Your task to perform on an android device: Open Youtube and go to the subscriptions tab Image 0: 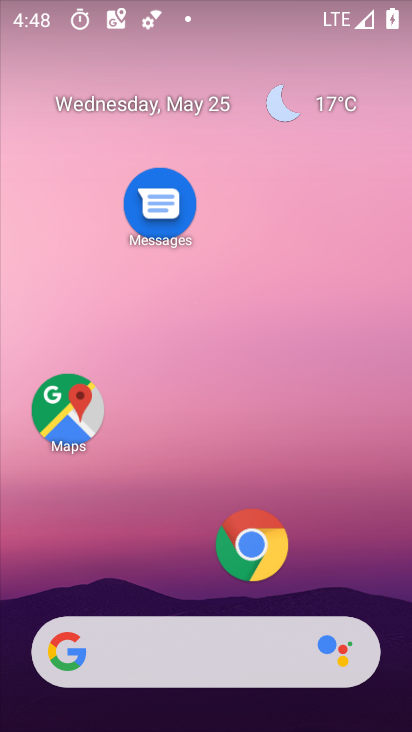
Step 0: drag from (318, 568) to (264, 231)
Your task to perform on an android device: Open Youtube and go to the subscriptions tab Image 1: 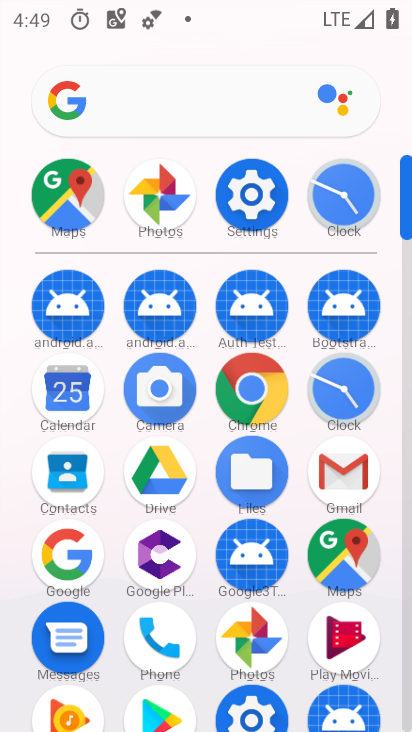
Step 1: drag from (214, 592) to (201, 325)
Your task to perform on an android device: Open Youtube and go to the subscriptions tab Image 2: 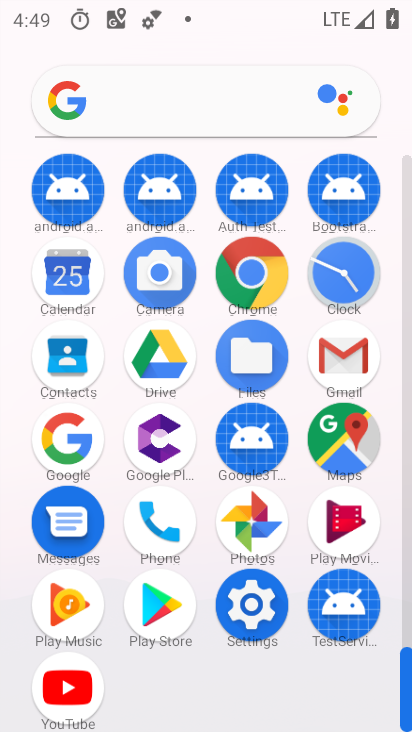
Step 2: click (56, 692)
Your task to perform on an android device: Open Youtube and go to the subscriptions tab Image 3: 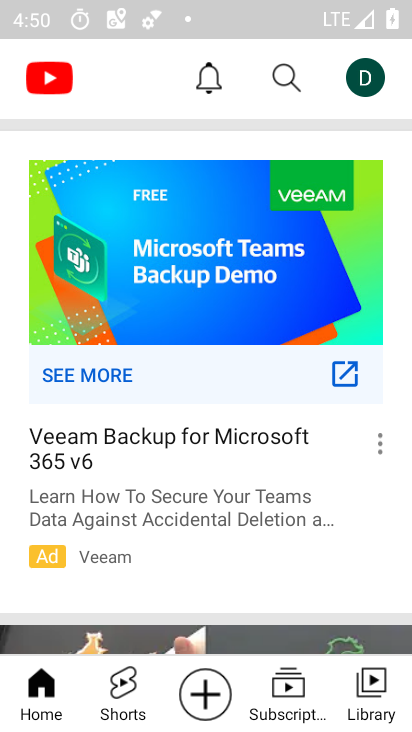
Step 3: click (296, 678)
Your task to perform on an android device: Open Youtube and go to the subscriptions tab Image 4: 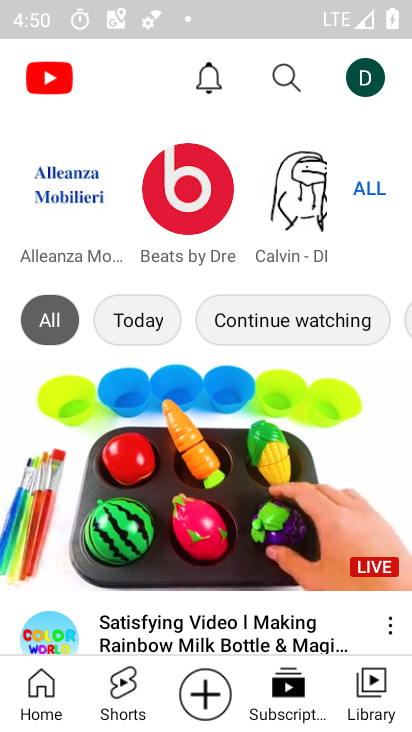
Step 4: task complete